Your task to perform on an android device: Find coffee shops on Maps Image 0: 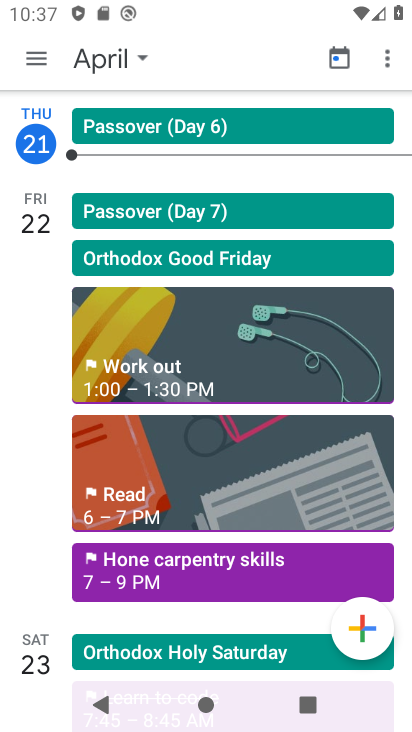
Step 0: press home button
Your task to perform on an android device: Find coffee shops on Maps Image 1: 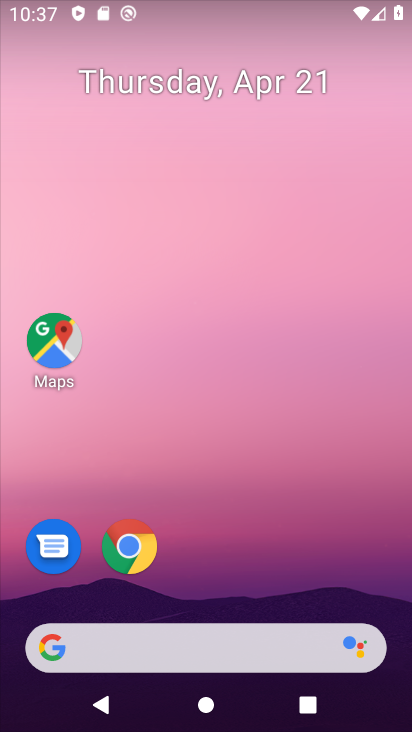
Step 1: drag from (270, 556) to (279, 82)
Your task to perform on an android device: Find coffee shops on Maps Image 2: 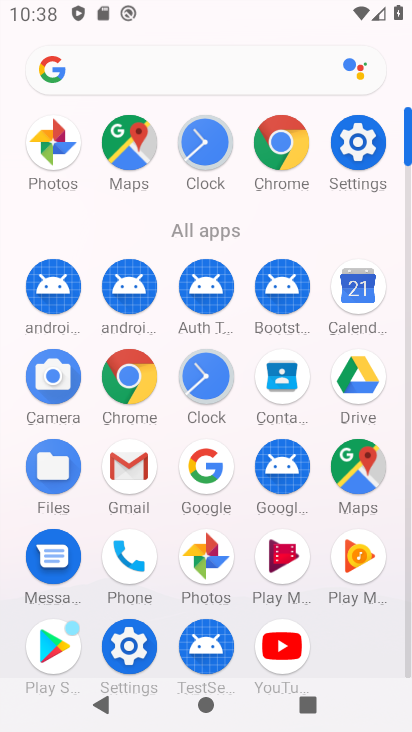
Step 2: click (353, 457)
Your task to perform on an android device: Find coffee shops on Maps Image 3: 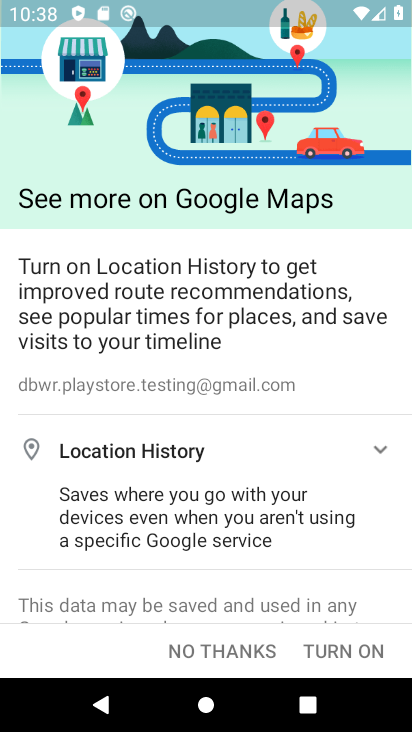
Step 3: click (179, 655)
Your task to perform on an android device: Find coffee shops on Maps Image 4: 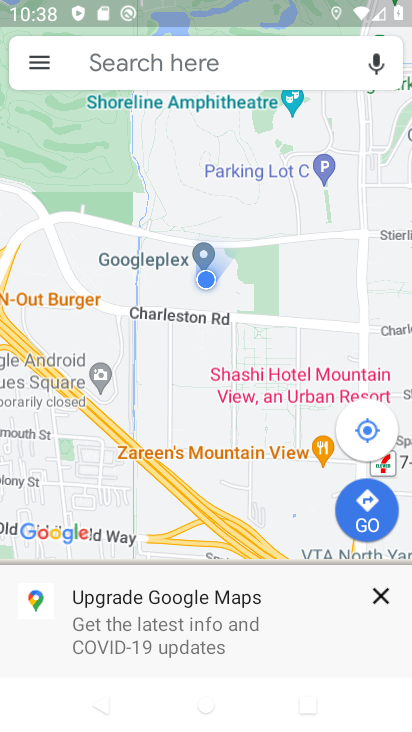
Step 4: click (218, 49)
Your task to perform on an android device: Find coffee shops on Maps Image 5: 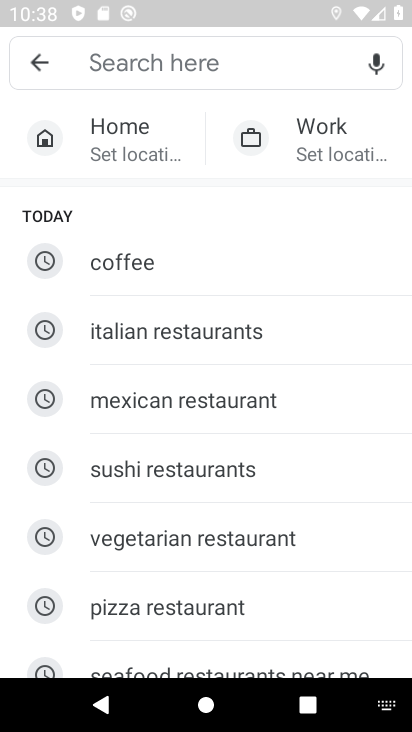
Step 5: type "coffee shops"
Your task to perform on an android device: Find coffee shops on Maps Image 6: 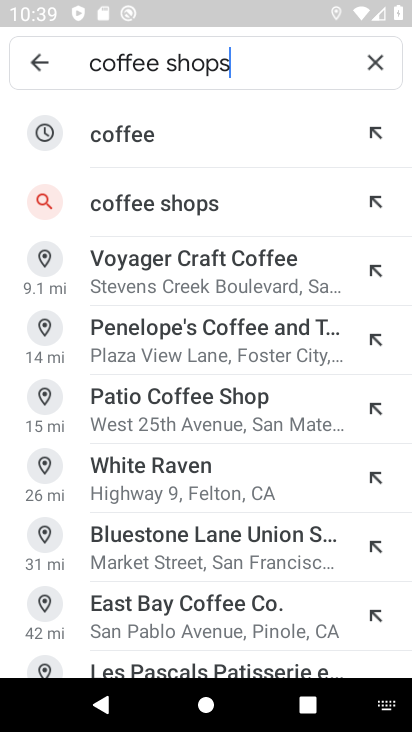
Step 6: click (195, 196)
Your task to perform on an android device: Find coffee shops on Maps Image 7: 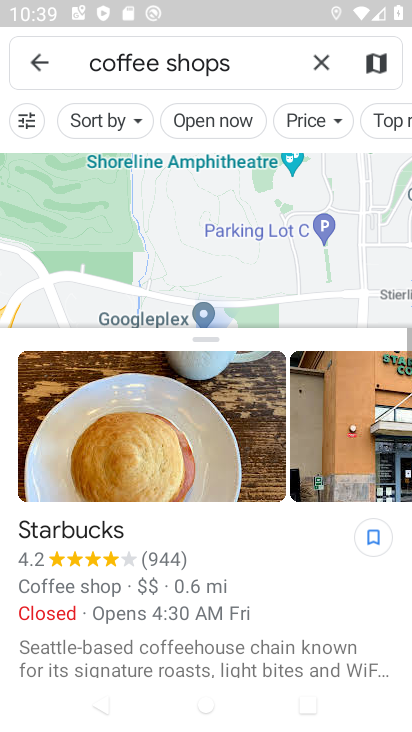
Step 7: task complete